Your task to perform on an android device: stop showing notifications on the lock screen Image 0: 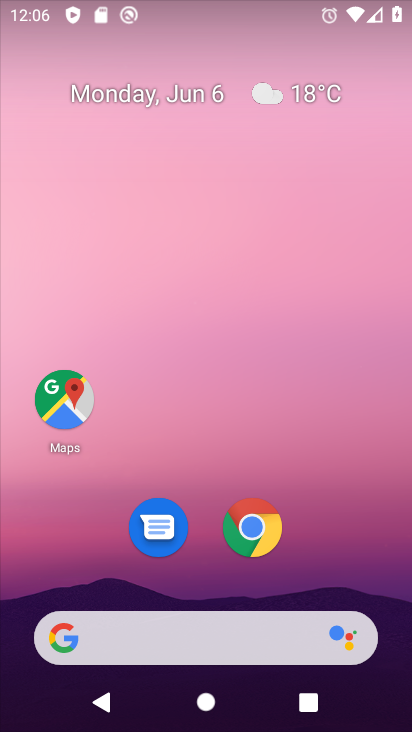
Step 0: drag from (233, 607) to (391, 101)
Your task to perform on an android device: stop showing notifications on the lock screen Image 1: 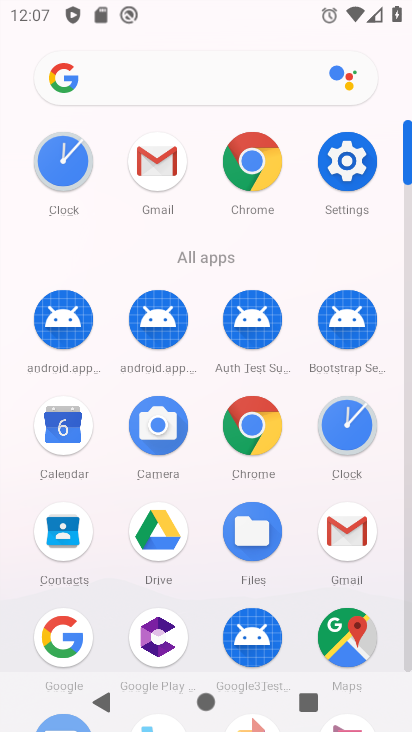
Step 1: click (344, 179)
Your task to perform on an android device: stop showing notifications on the lock screen Image 2: 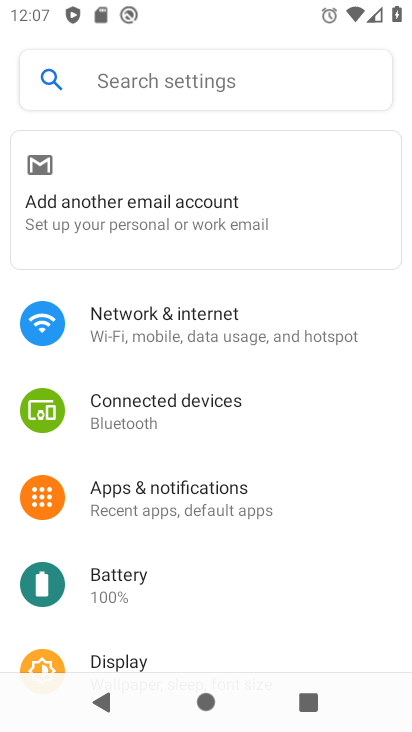
Step 2: click (189, 501)
Your task to perform on an android device: stop showing notifications on the lock screen Image 3: 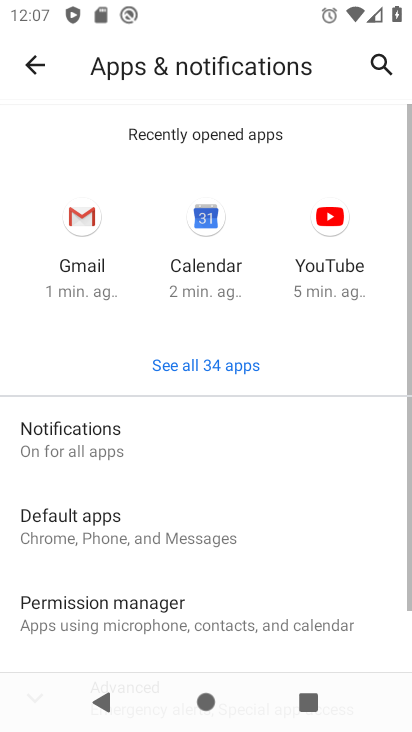
Step 3: click (104, 460)
Your task to perform on an android device: stop showing notifications on the lock screen Image 4: 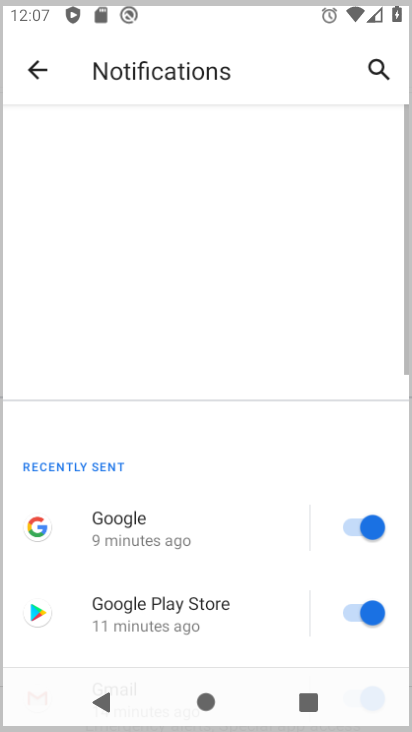
Step 4: drag from (186, 570) to (163, 10)
Your task to perform on an android device: stop showing notifications on the lock screen Image 5: 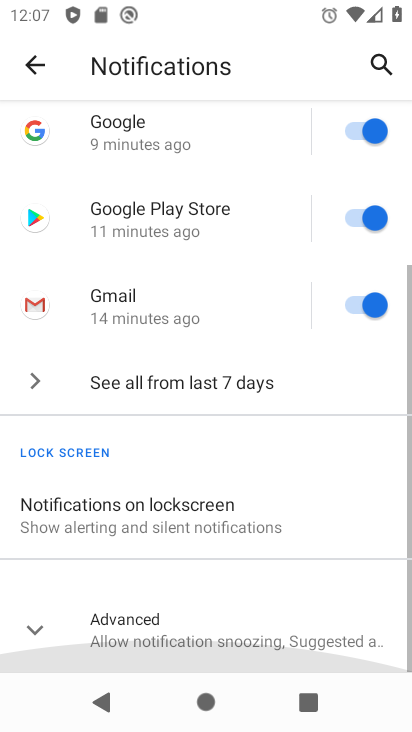
Step 5: click (234, 516)
Your task to perform on an android device: stop showing notifications on the lock screen Image 6: 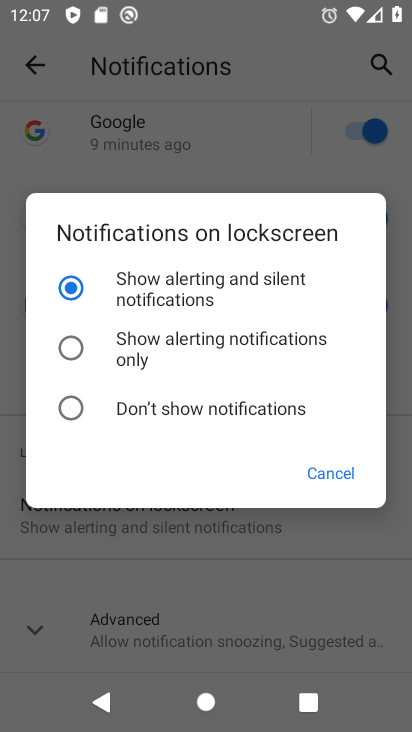
Step 6: click (164, 402)
Your task to perform on an android device: stop showing notifications on the lock screen Image 7: 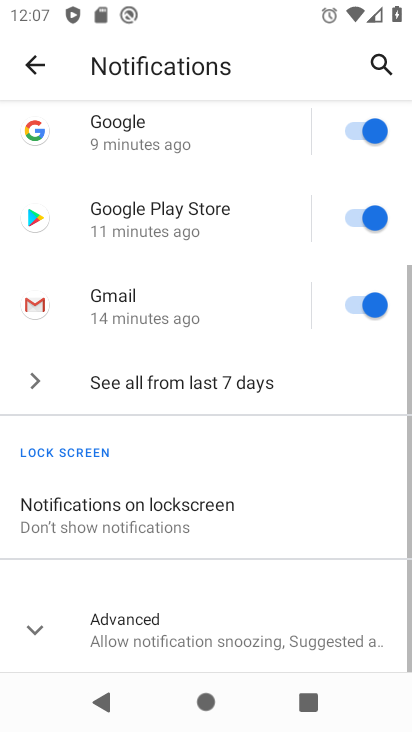
Step 7: task complete